Your task to perform on an android device: open a bookmark in the chrome app Image 0: 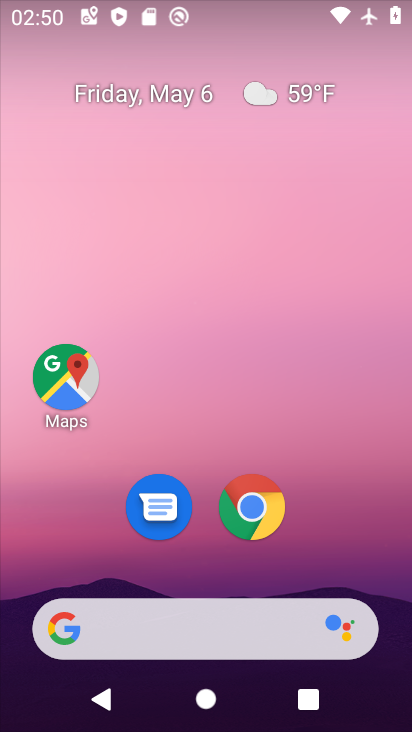
Step 0: click (272, 517)
Your task to perform on an android device: open a bookmark in the chrome app Image 1: 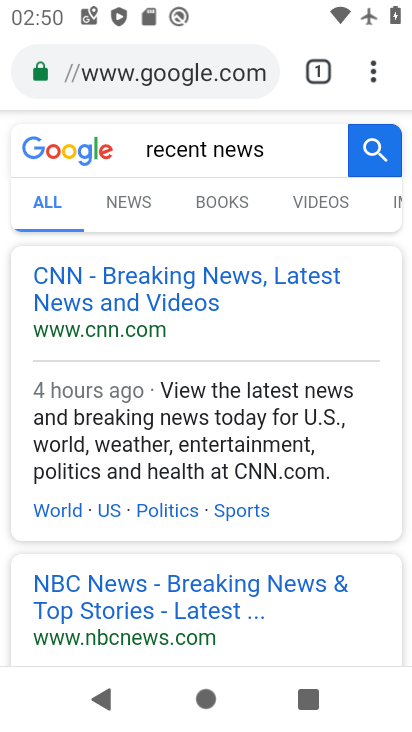
Step 1: drag from (374, 78) to (233, 293)
Your task to perform on an android device: open a bookmark in the chrome app Image 2: 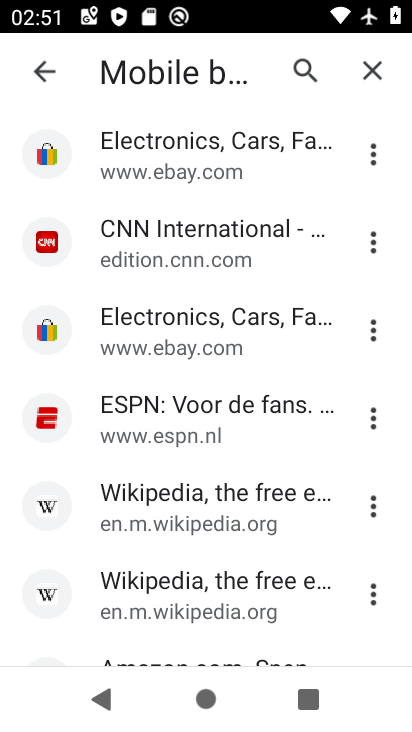
Step 2: click (176, 175)
Your task to perform on an android device: open a bookmark in the chrome app Image 3: 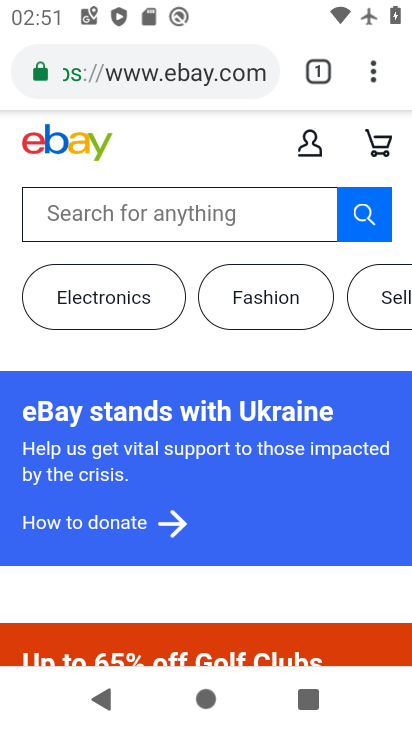
Step 3: task complete